Your task to perform on an android device: Search for seafood restaurants on Google Maps Image 0: 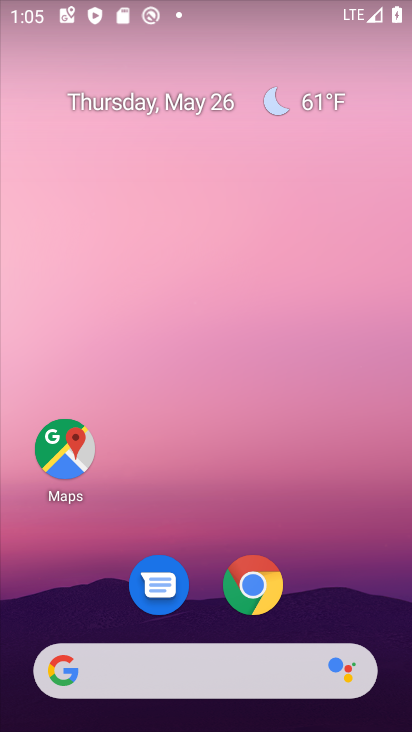
Step 0: click (63, 446)
Your task to perform on an android device: Search for seafood restaurants on Google Maps Image 1: 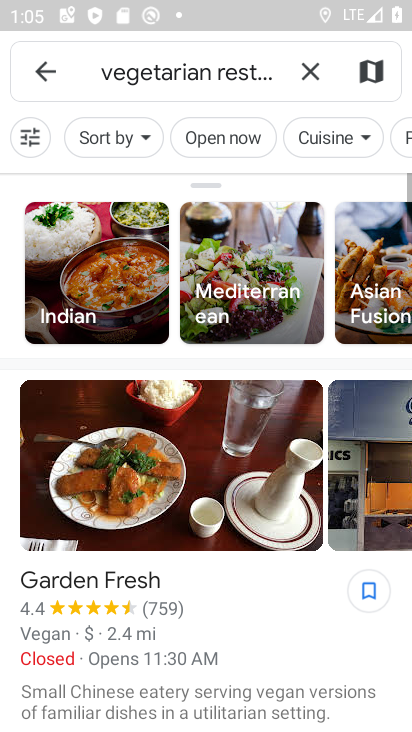
Step 1: click (308, 75)
Your task to perform on an android device: Search for seafood restaurants on Google Maps Image 2: 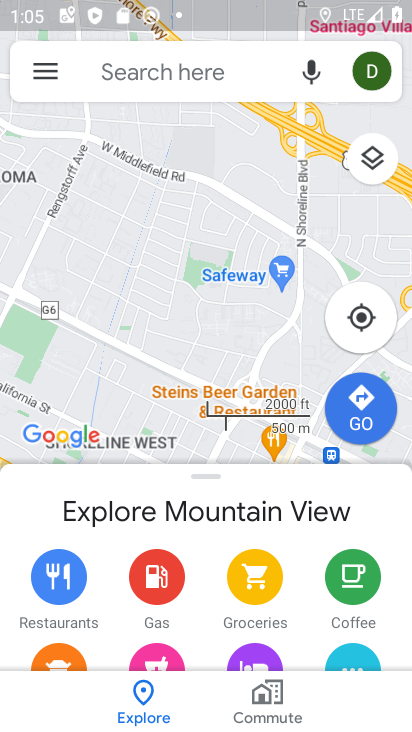
Step 2: click (227, 67)
Your task to perform on an android device: Search for seafood restaurants on Google Maps Image 3: 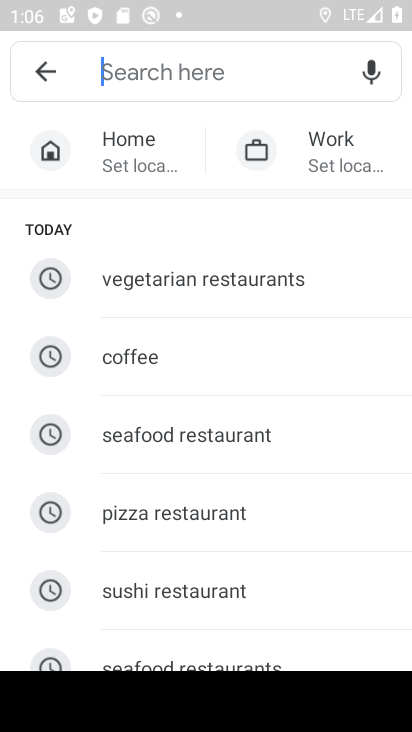
Step 3: click (143, 428)
Your task to perform on an android device: Search for seafood restaurants on Google Maps Image 4: 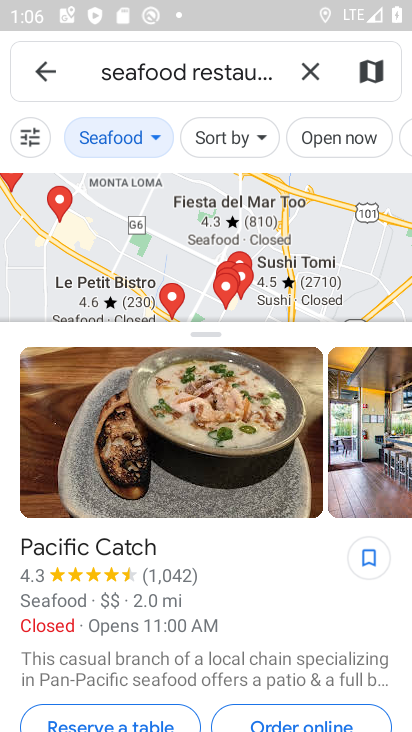
Step 4: task complete